Your task to perform on an android device: Open notification settings Image 0: 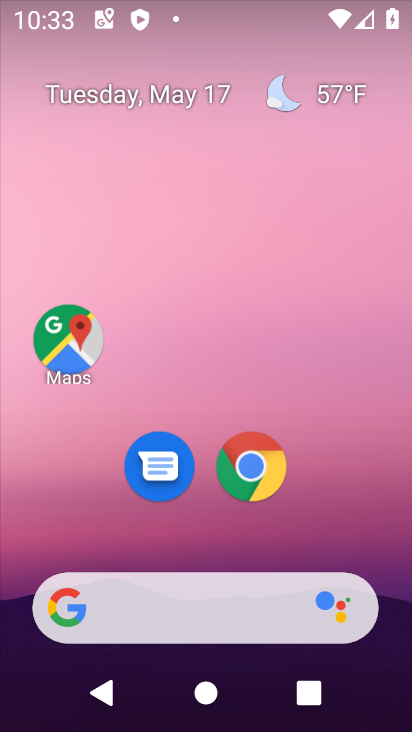
Step 0: drag from (83, 553) to (181, 136)
Your task to perform on an android device: Open notification settings Image 1: 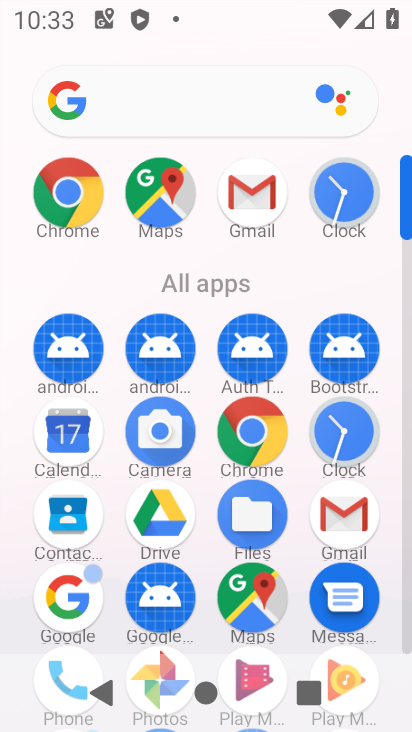
Step 1: drag from (175, 630) to (220, 348)
Your task to perform on an android device: Open notification settings Image 2: 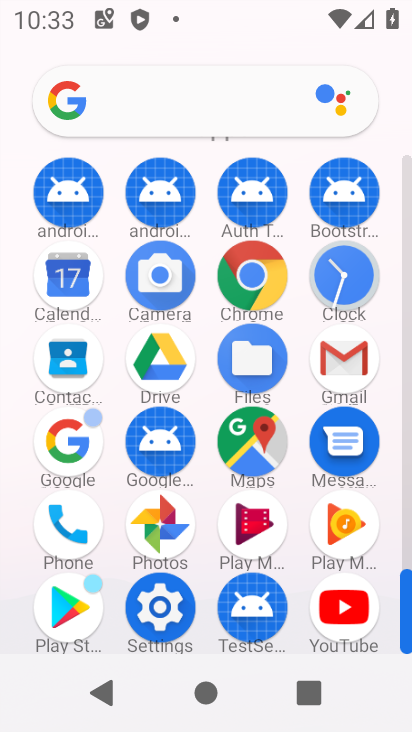
Step 2: click (155, 610)
Your task to perform on an android device: Open notification settings Image 3: 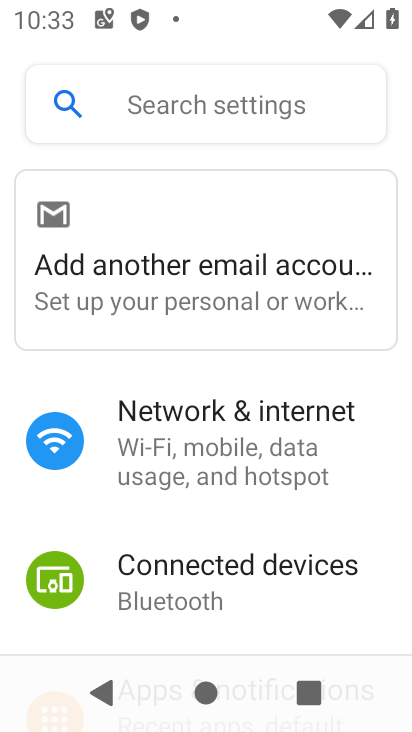
Step 3: drag from (208, 620) to (333, 167)
Your task to perform on an android device: Open notification settings Image 4: 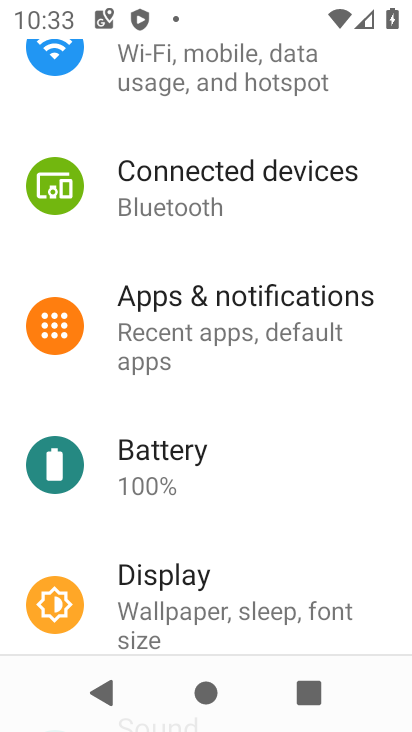
Step 4: click (265, 340)
Your task to perform on an android device: Open notification settings Image 5: 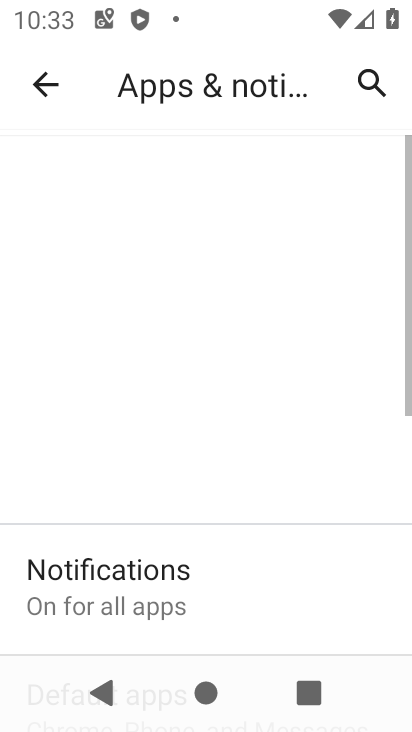
Step 5: click (230, 590)
Your task to perform on an android device: Open notification settings Image 6: 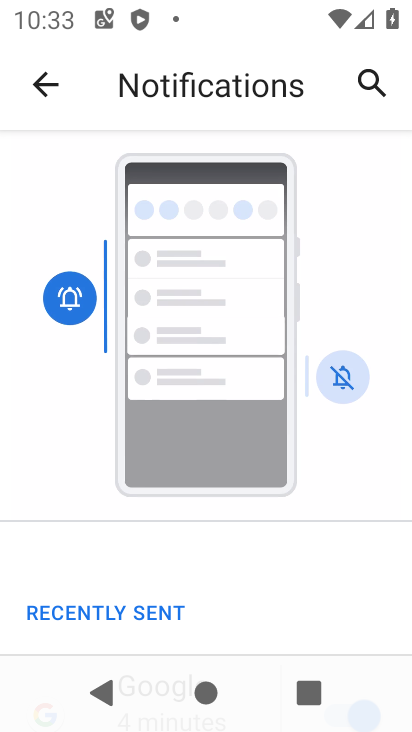
Step 6: task complete